Your task to perform on an android device: turn off javascript in the chrome app Image 0: 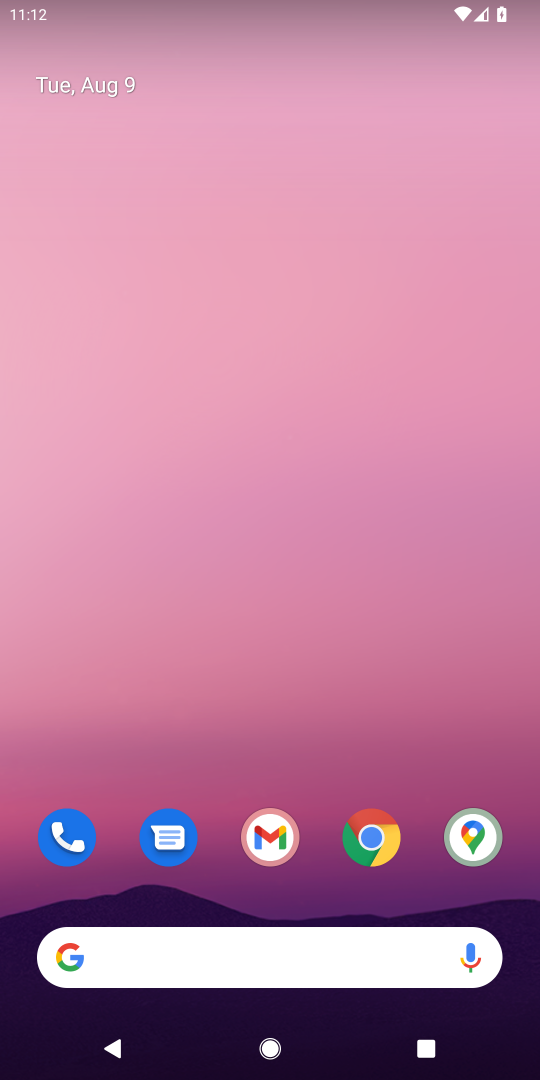
Step 0: click (371, 841)
Your task to perform on an android device: turn off javascript in the chrome app Image 1: 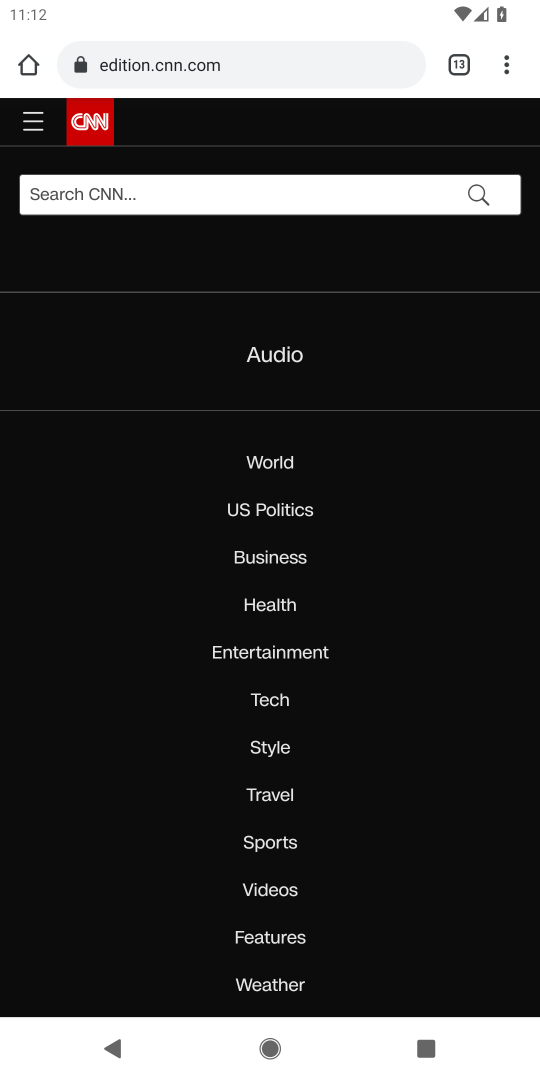
Step 1: click (508, 67)
Your task to perform on an android device: turn off javascript in the chrome app Image 2: 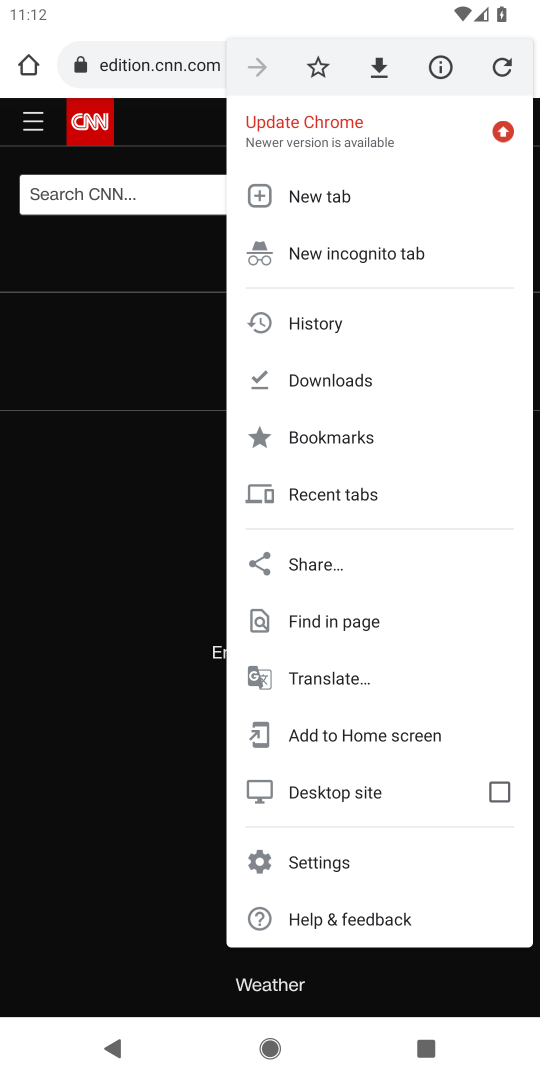
Step 2: click (304, 860)
Your task to perform on an android device: turn off javascript in the chrome app Image 3: 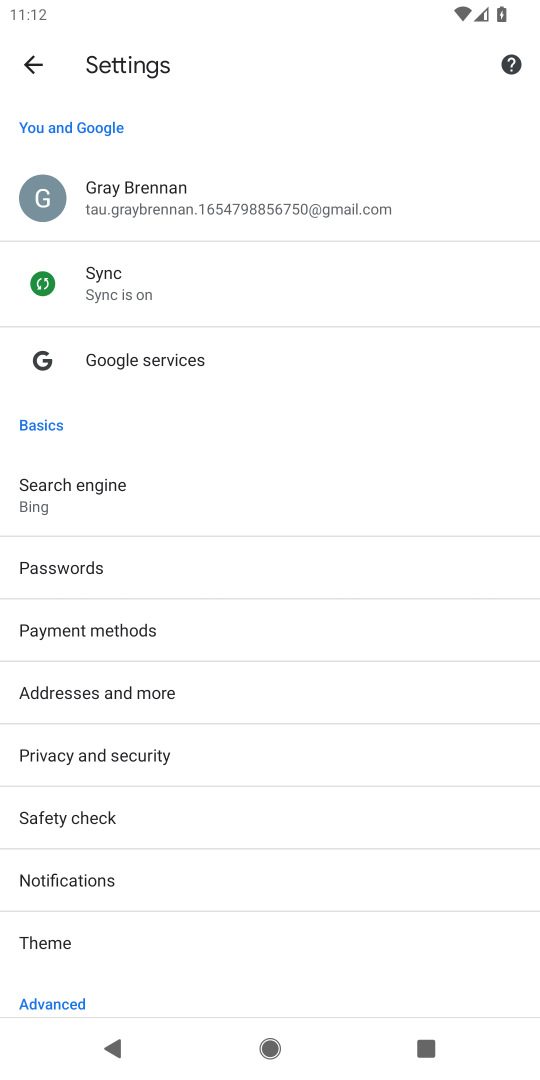
Step 3: drag from (102, 968) to (113, 486)
Your task to perform on an android device: turn off javascript in the chrome app Image 4: 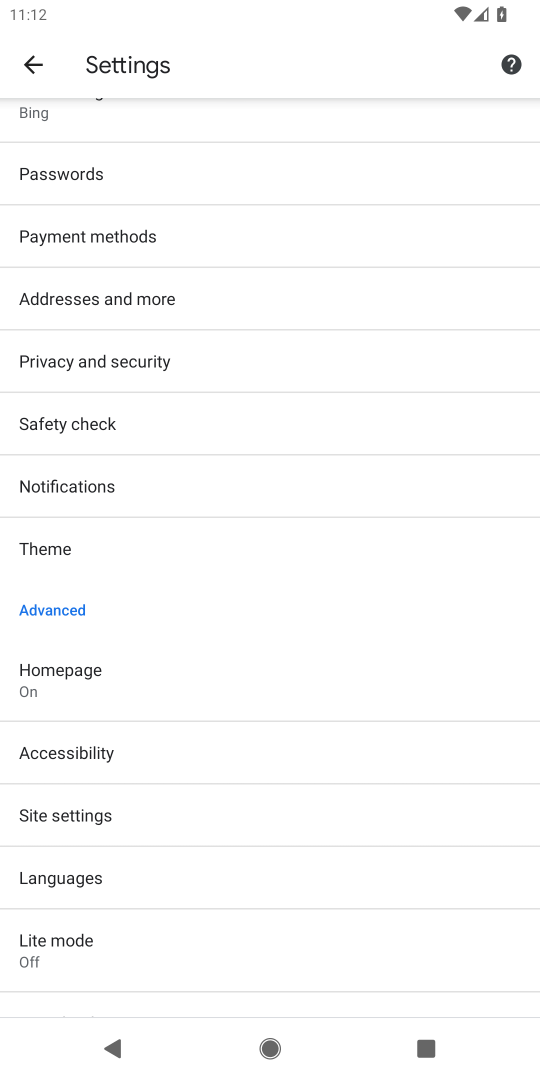
Step 4: click (86, 817)
Your task to perform on an android device: turn off javascript in the chrome app Image 5: 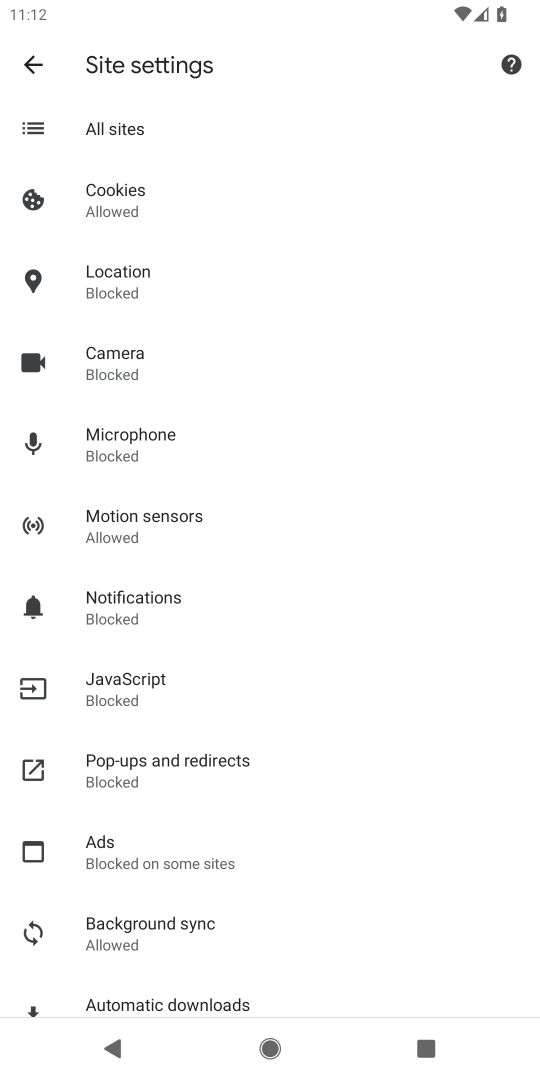
Step 5: click (132, 692)
Your task to perform on an android device: turn off javascript in the chrome app Image 6: 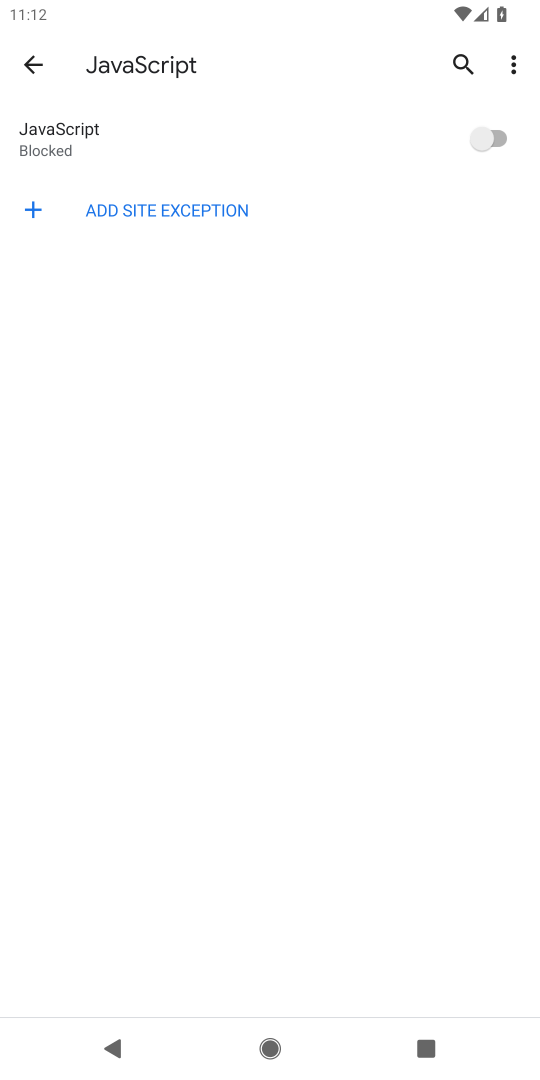
Step 6: task complete